Your task to perform on an android device: Clear the shopping cart on newegg. Image 0: 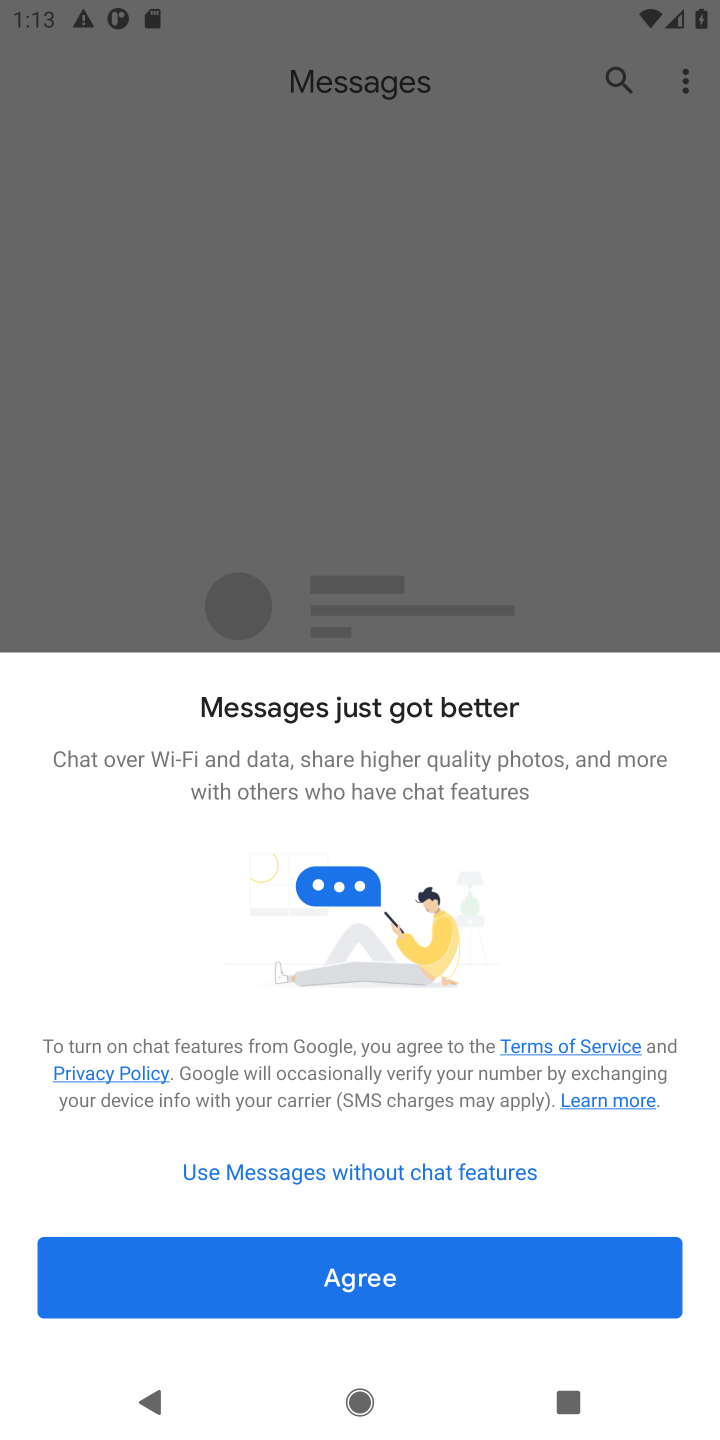
Step 0: press home button
Your task to perform on an android device: Clear the shopping cart on newegg. Image 1: 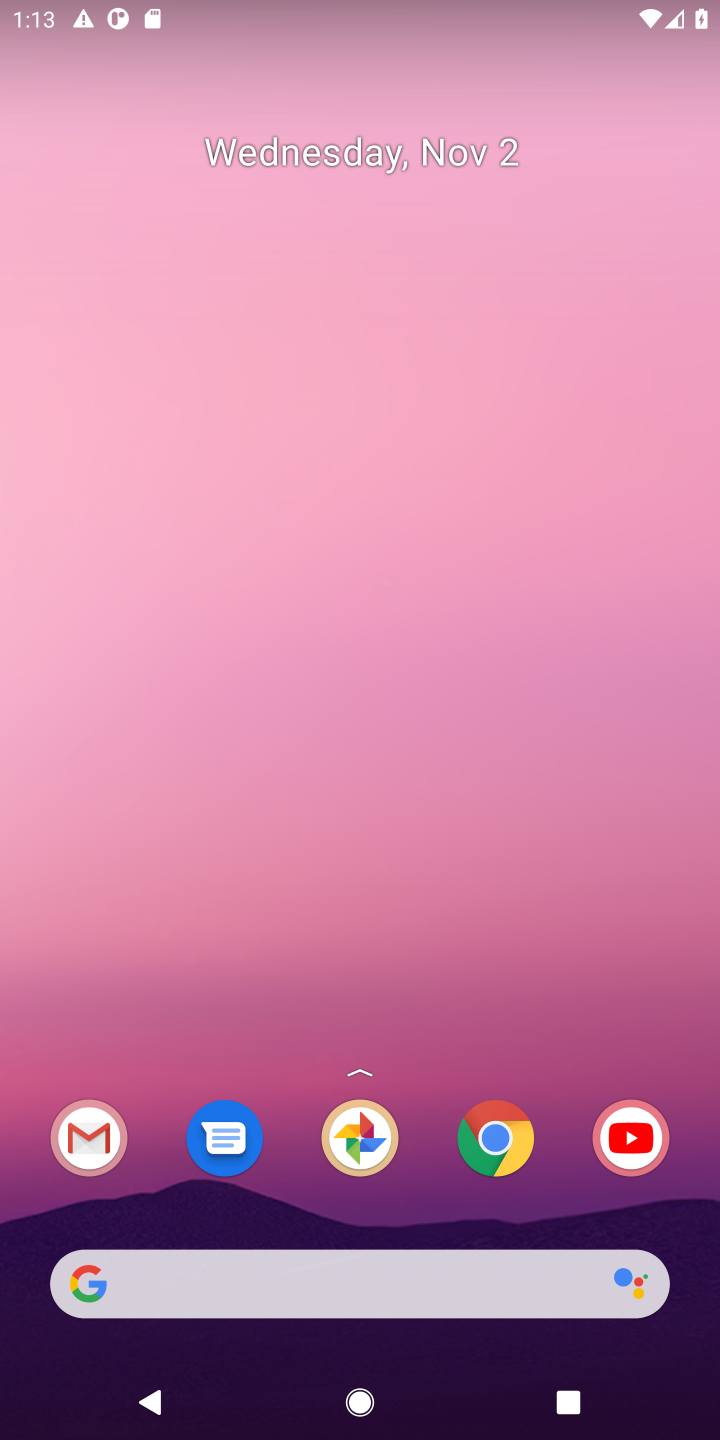
Step 1: click (510, 1121)
Your task to perform on an android device: Clear the shopping cart on newegg. Image 2: 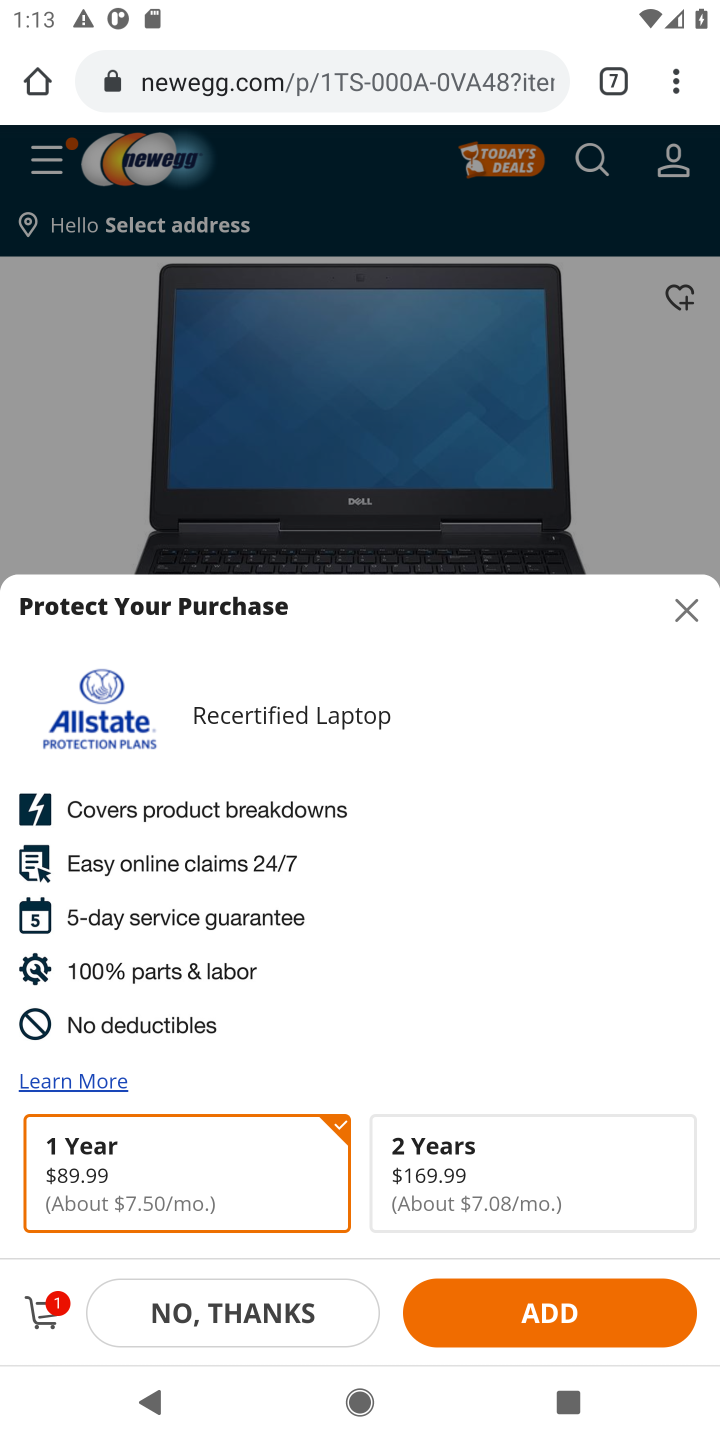
Step 2: click (672, 610)
Your task to perform on an android device: Clear the shopping cart on newegg. Image 3: 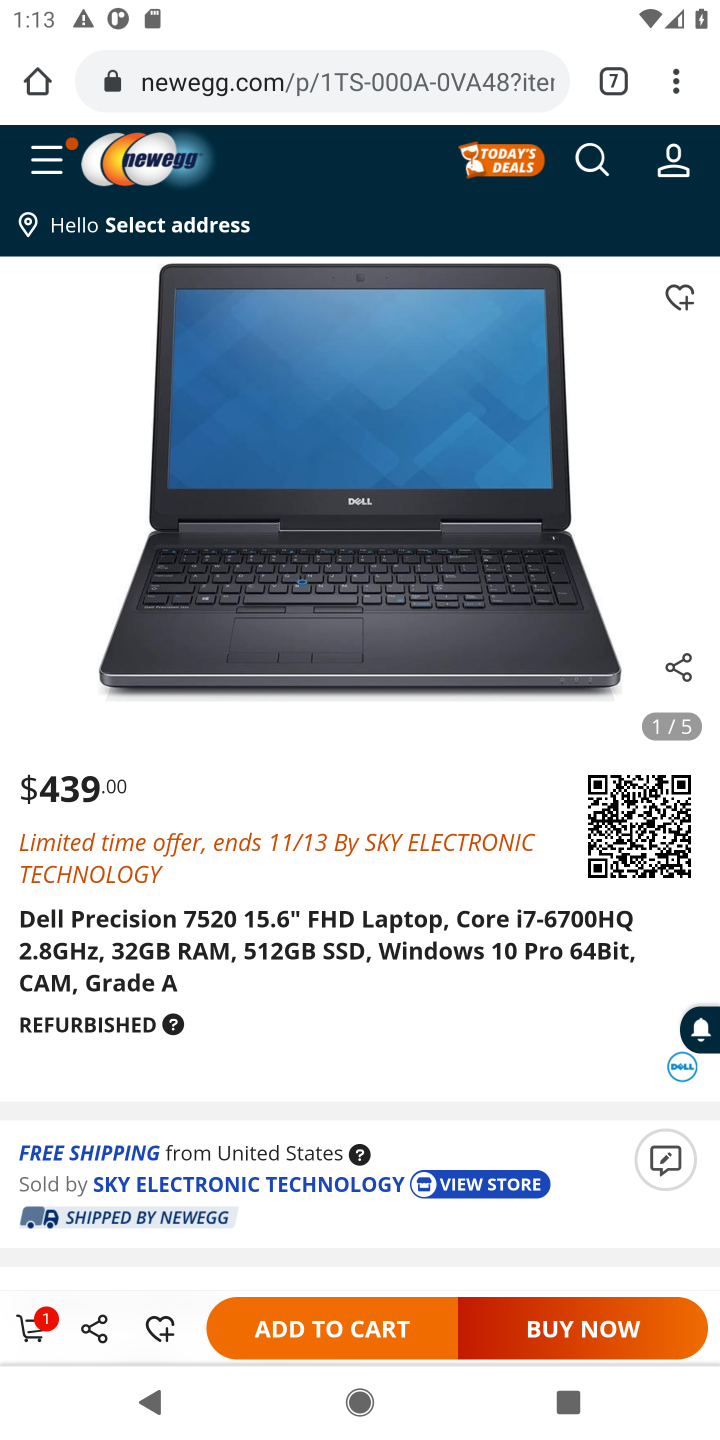
Step 3: click (38, 1344)
Your task to perform on an android device: Clear the shopping cart on newegg. Image 4: 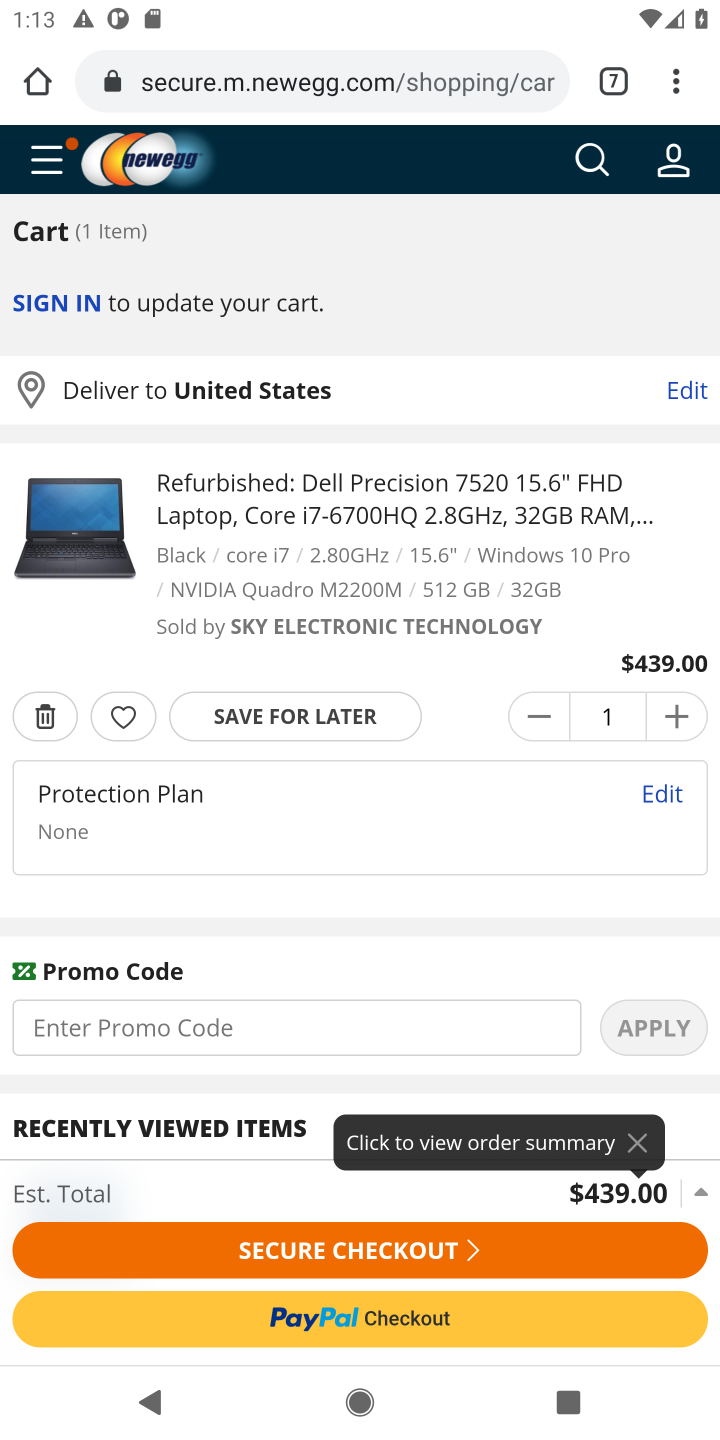
Step 4: click (43, 716)
Your task to perform on an android device: Clear the shopping cart on newegg. Image 5: 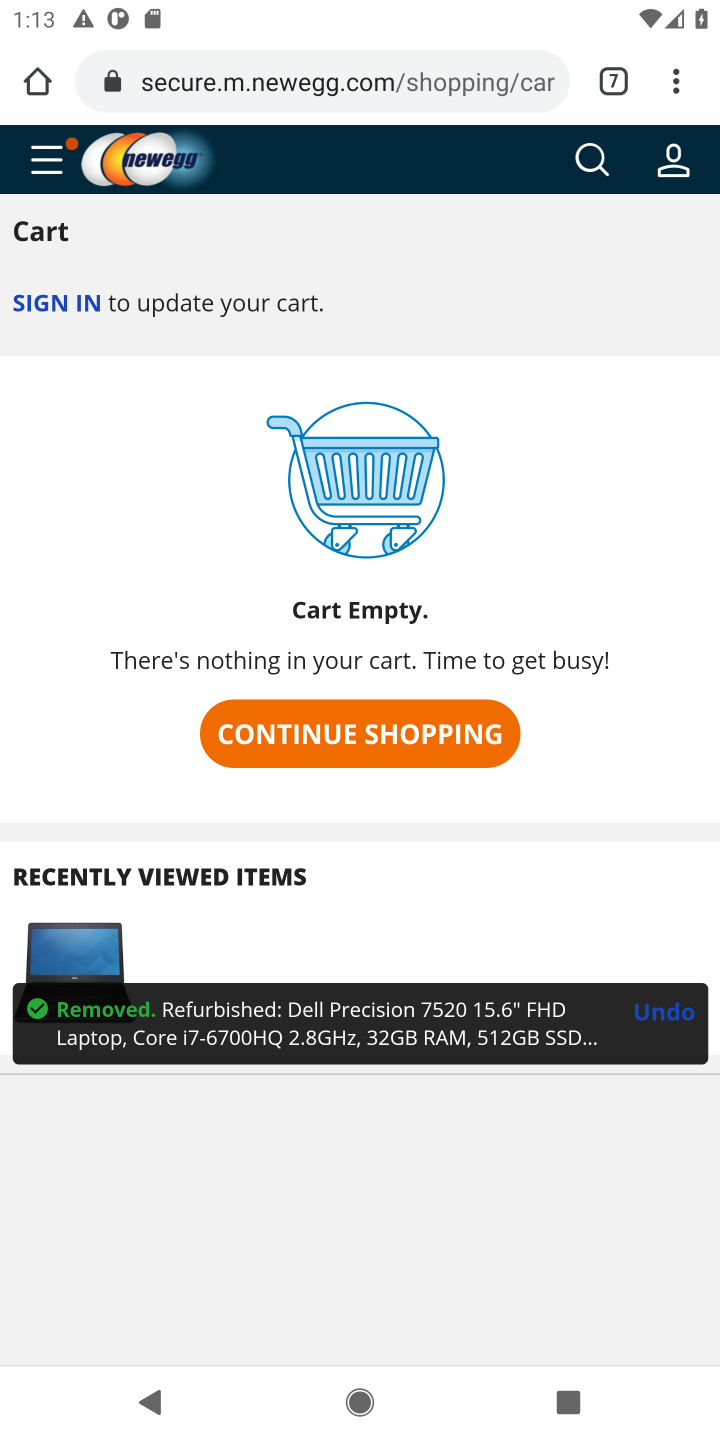
Step 5: task complete